Your task to perform on an android device: Do I have any events this weekend? Image 0: 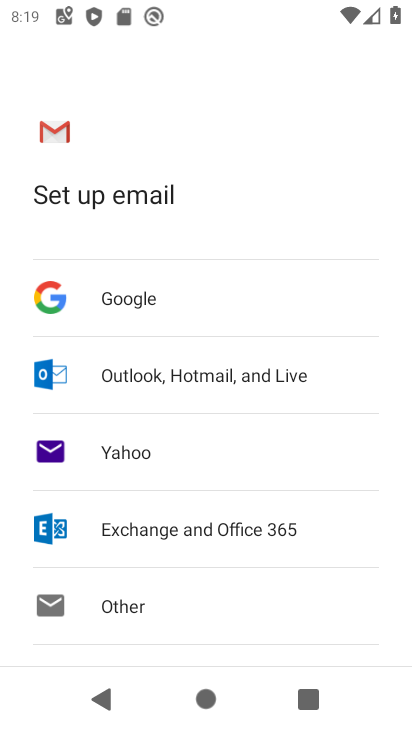
Step 0: press home button
Your task to perform on an android device: Do I have any events this weekend? Image 1: 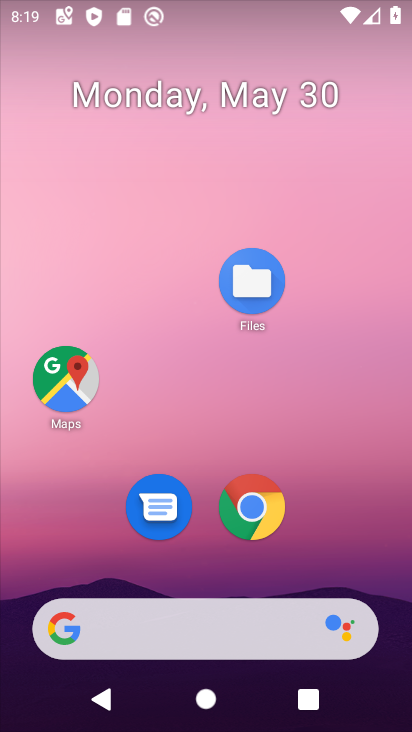
Step 1: drag from (217, 569) to (147, 13)
Your task to perform on an android device: Do I have any events this weekend? Image 2: 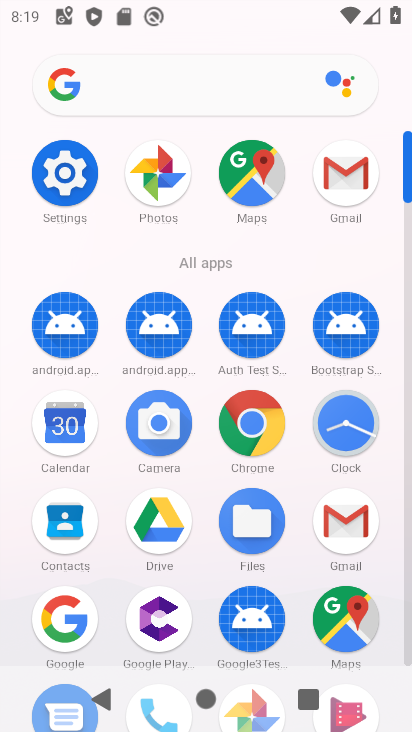
Step 2: click (67, 427)
Your task to perform on an android device: Do I have any events this weekend? Image 3: 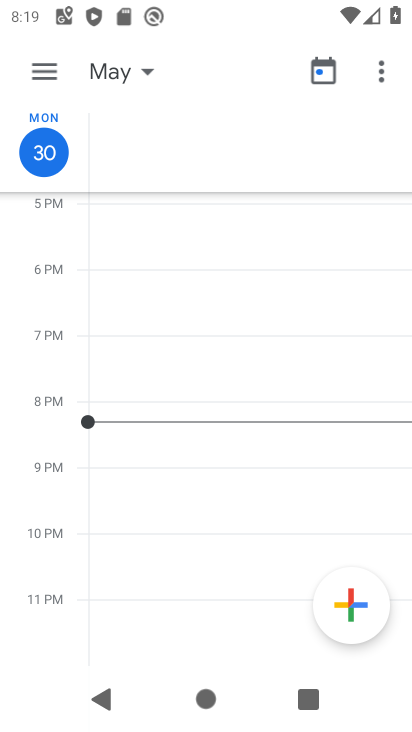
Step 3: click (41, 73)
Your task to perform on an android device: Do I have any events this weekend? Image 4: 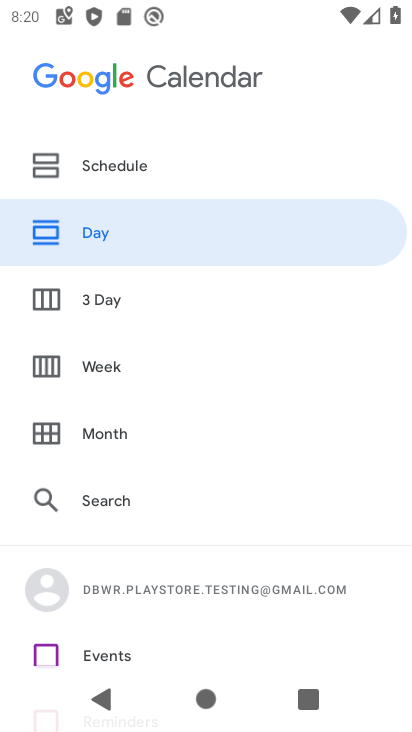
Step 4: drag from (126, 513) to (135, 438)
Your task to perform on an android device: Do I have any events this weekend? Image 5: 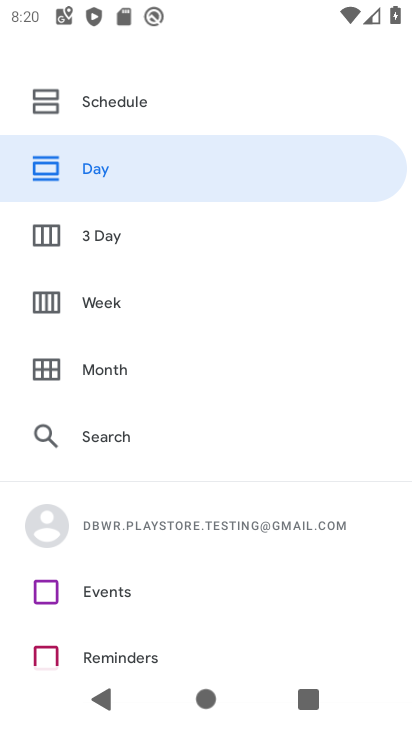
Step 5: click (92, 581)
Your task to perform on an android device: Do I have any events this weekend? Image 6: 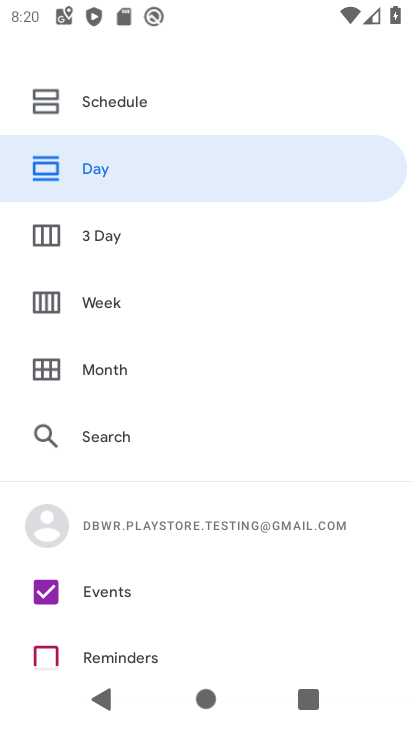
Step 6: click (121, 290)
Your task to perform on an android device: Do I have any events this weekend? Image 7: 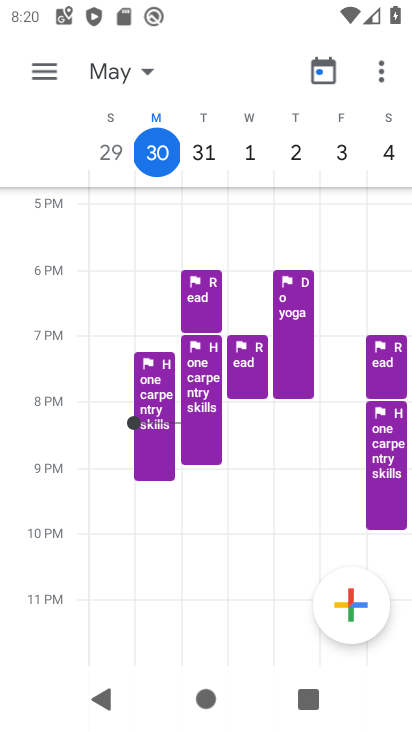
Step 7: task complete